Your task to perform on an android device: toggle sleep mode Image 0: 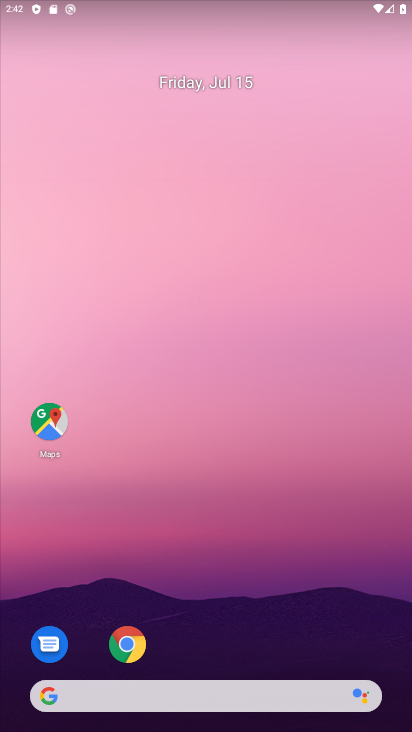
Step 0: drag from (275, 687) to (307, 39)
Your task to perform on an android device: toggle sleep mode Image 1: 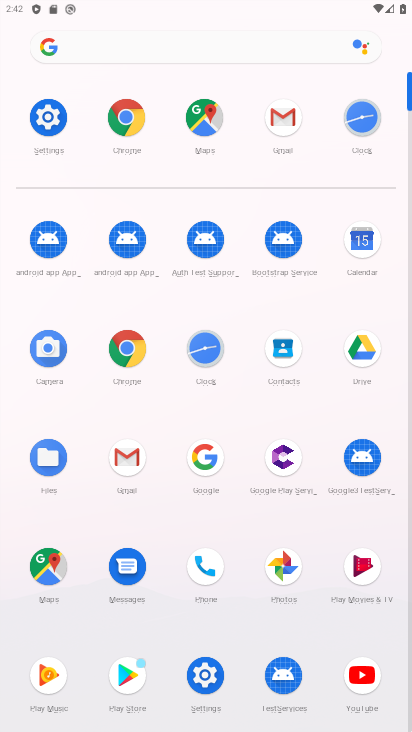
Step 1: click (54, 131)
Your task to perform on an android device: toggle sleep mode Image 2: 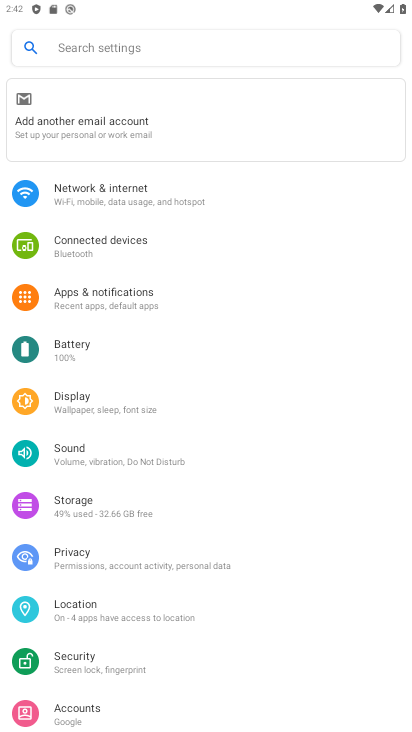
Step 2: click (73, 45)
Your task to perform on an android device: toggle sleep mode Image 3: 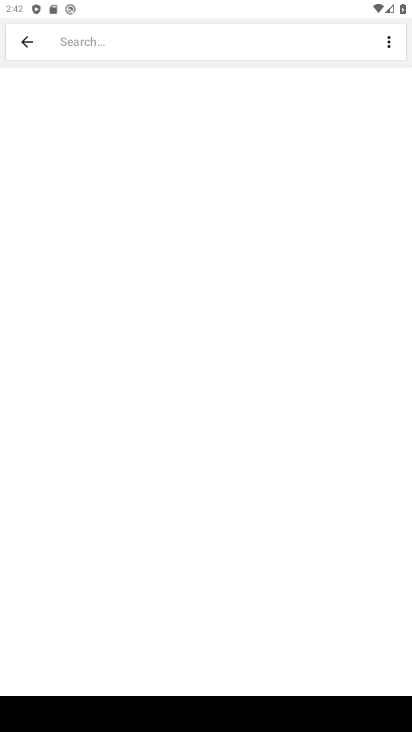
Step 3: type "sleep mode"
Your task to perform on an android device: toggle sleep mode Image 4: 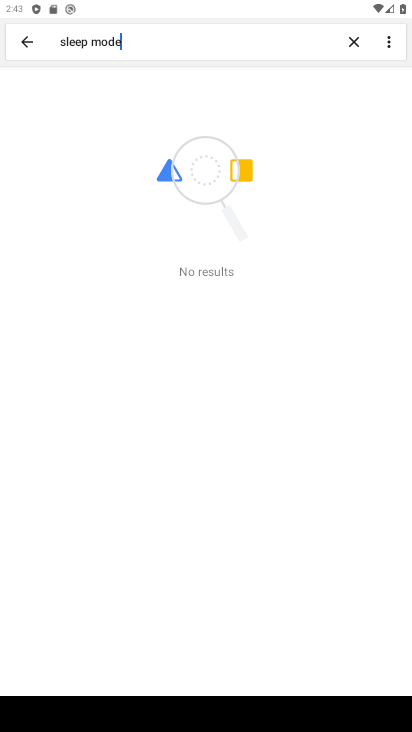
Step 4: task complete